Your task to perform on an android device: toggle translation in the chrome app Image 0: 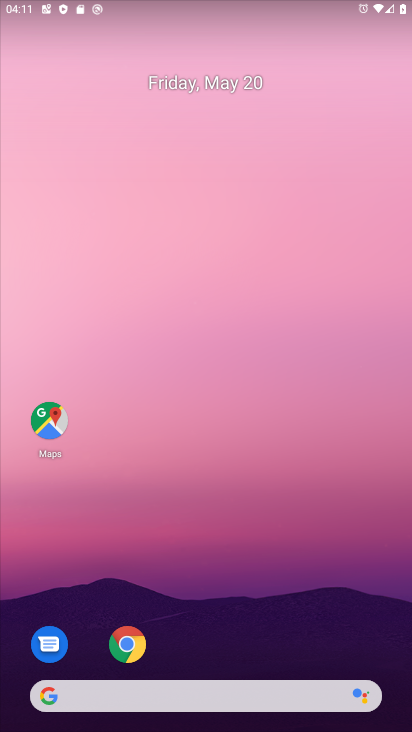
Step 0: click (110, 645)
Your task to perform on an android device: toggle translation in the chrome app Image 1: 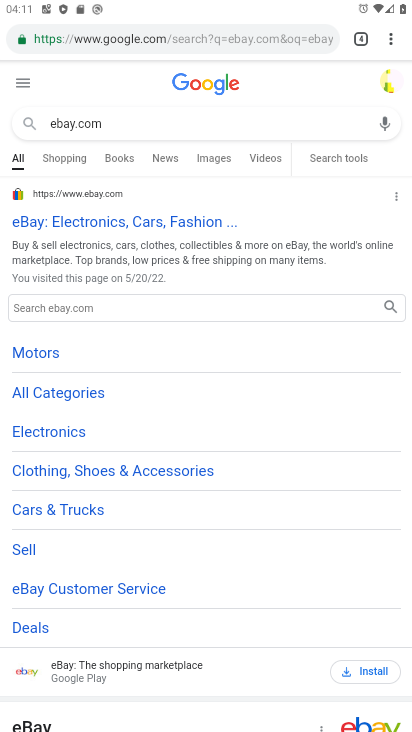
Step 1: click (395, 43)
Your task to perform on an android device: toggle translation in the chrome app Image 2: 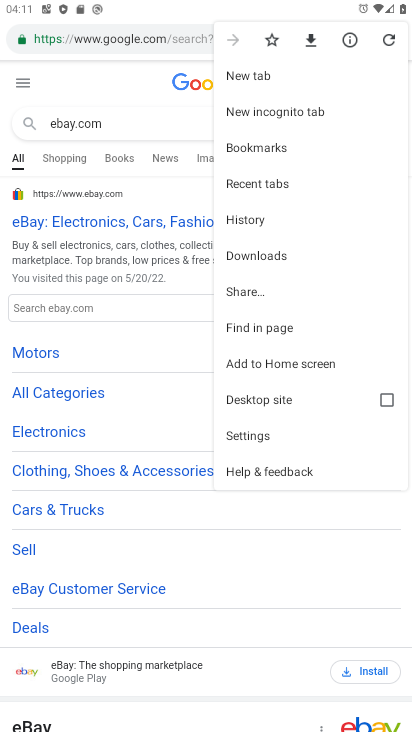
Step 2: click (261, 428)
Your task to perform on an android device: toggle translation in the chrome app Image 3: 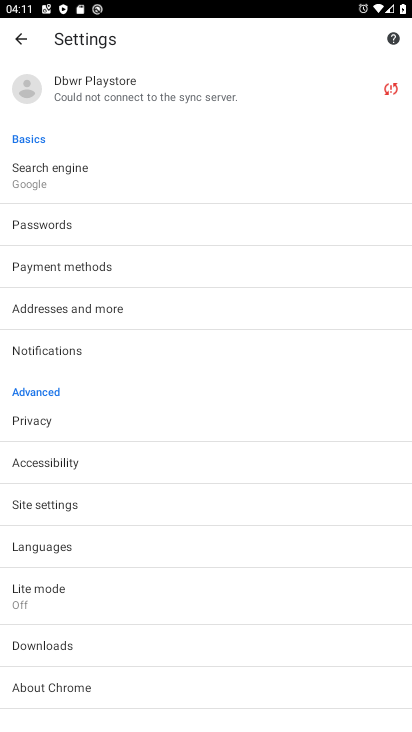
Step 3: drag from (216, 596) to (250, 421)
Your task to perform on an android device: toggle translation in the chrome app Image 4: 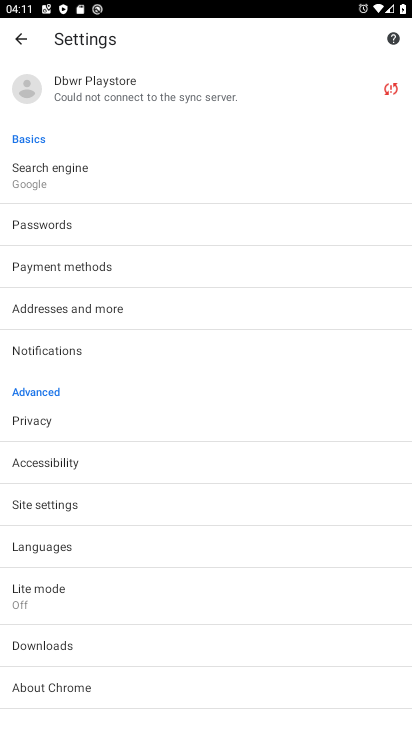
Step 4: click (187, 549)
Your task to perform on an android device: toggle translation in the chrome app Image 5: 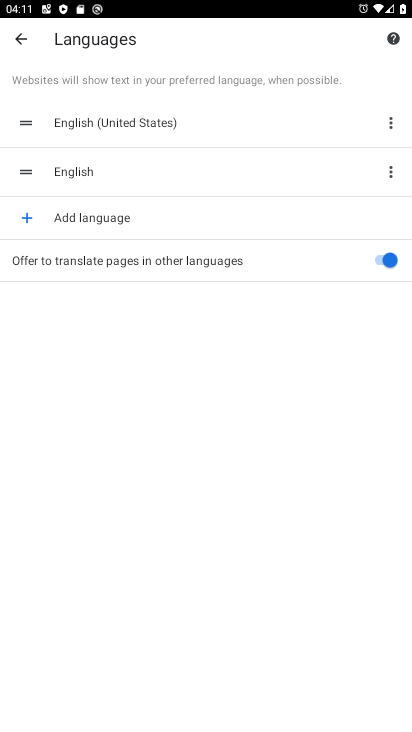
Step 5: click (384, 262)
Your task to perform on an android device: toggle translation in the chrome app Image 6: 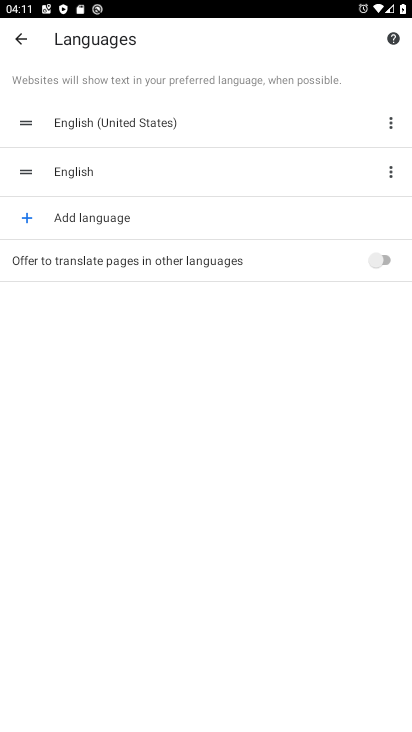
Step 6: task complete